Your task to perform on an android device: add a label to a message in the gmail app Image 0: 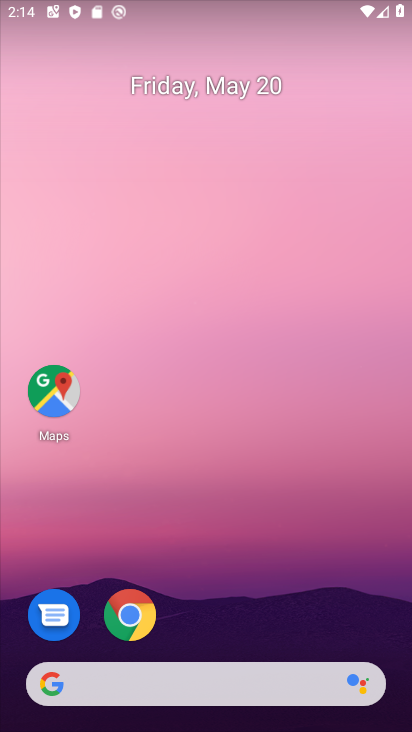
Step 0: drag from (285, 593) to (274, 244)
Your task to perform on an android device: add a label to a message in the gmail app Image 1: 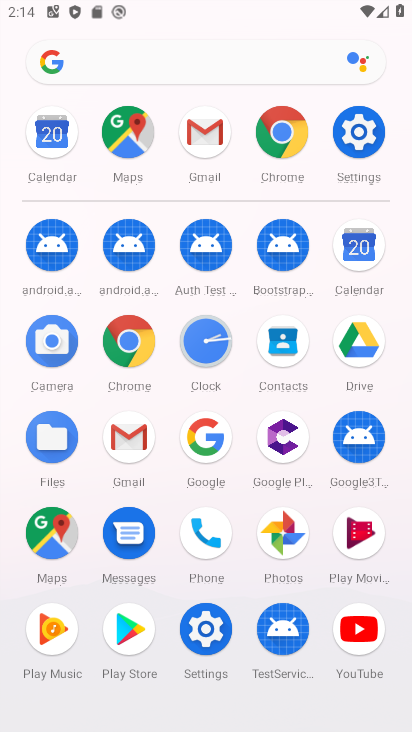
Step 1: click (125, 418)
Your task to perform on an android device: add a label to a message in the gmail app Image 2: 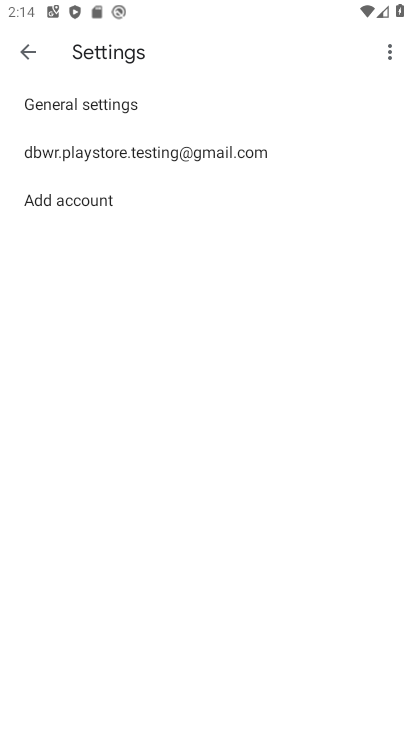
Step 2: click (153, 153)
Your task to perform on an android device: add a label to a message in the gmail app Image 3: 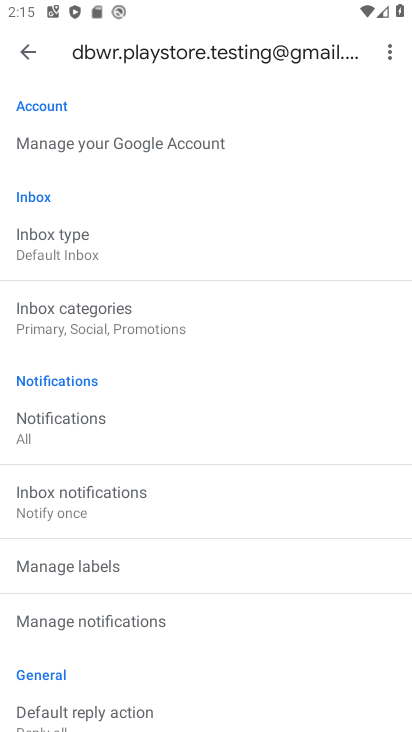
Step 3: drag from (198, 623) to (220, 363)
Your task to perform on an android device: add a label to a message in the gmail app Image 4: 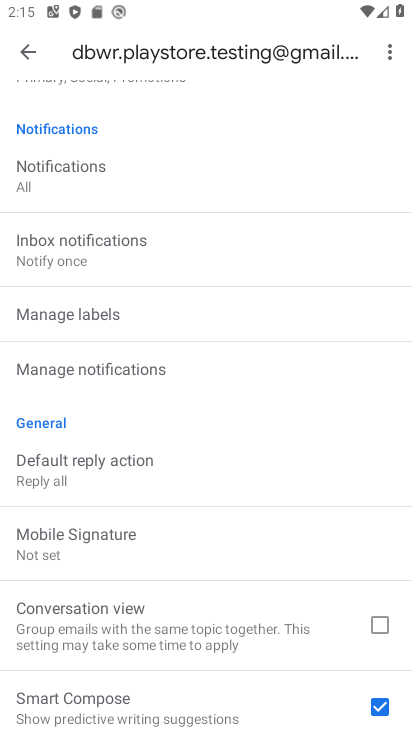
Step 4: click (28, 46)
Your task to perform on an android device: add a label to a message in the gmail app Image 5: 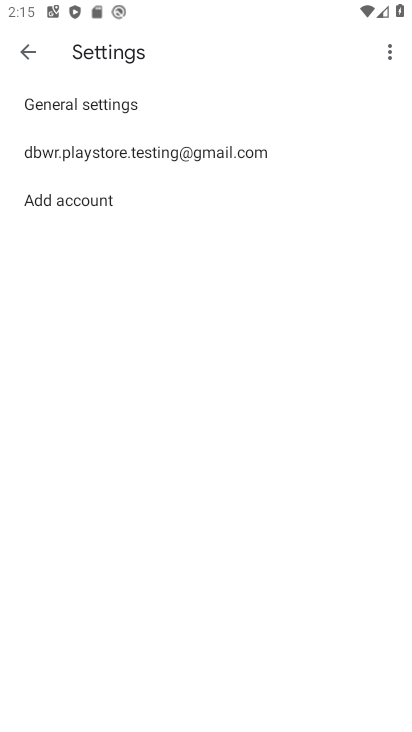
Step 5: click (32, 49)
Your task to perform on an android device: add a label to a message in the gmail app Image 6: 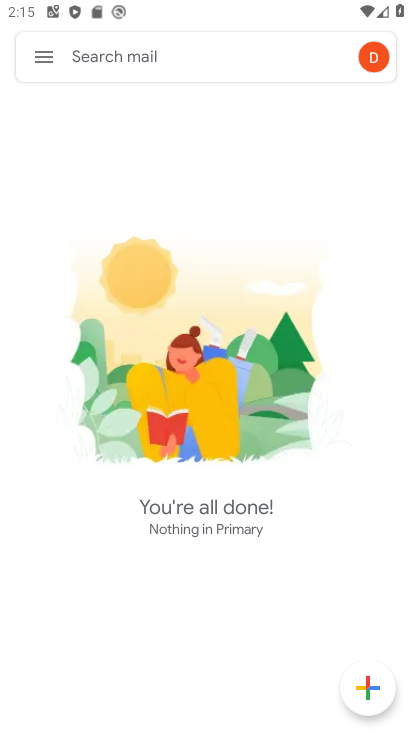
Step 6: click (33, 49)
Your task to perform on an android device: add a label to a message in the gmail app Image 7: 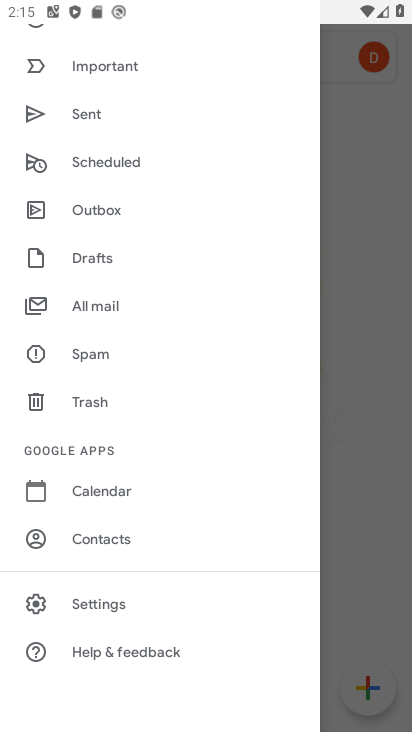
Step 7: click (147, 305)
Your task to perform on an android device: add a label to a message in the gmail app Image 8: 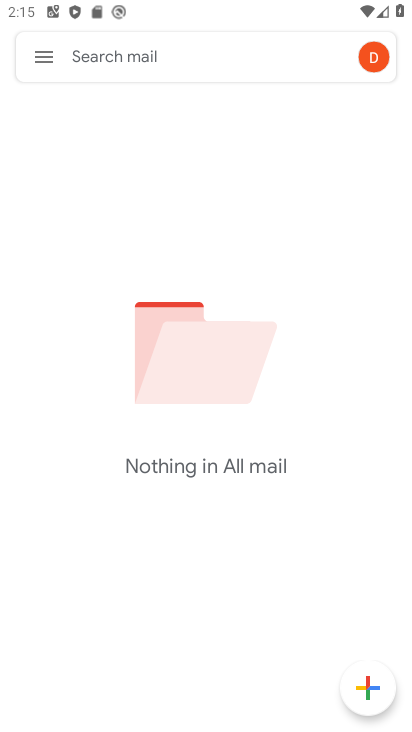
Step 8: task complete